Your task to perform on an android device: What's on my calendar today? Image 0: 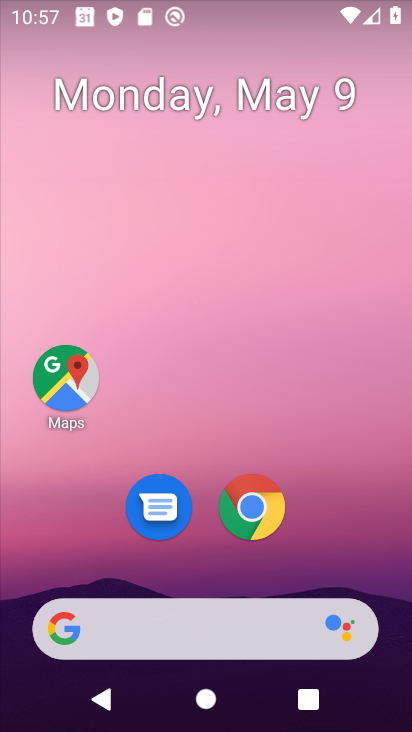
Step 0: click (242, 96)
Your task to perform on an android device: What's on my calendar today? Image 1: 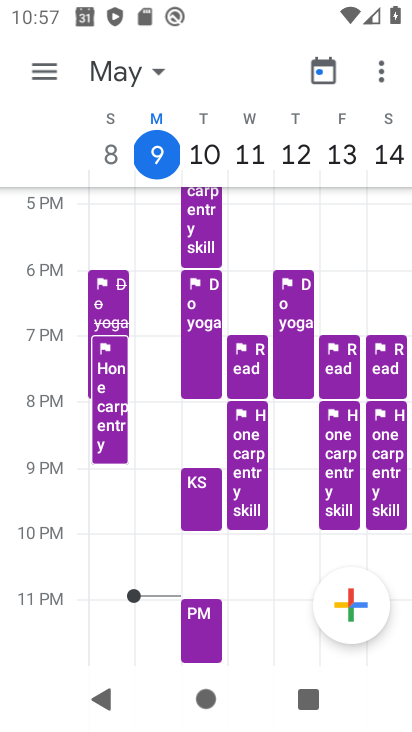
Step 1: click (39, 72)
Your task to perform on an android device: What's on my calendar today? Image 2: 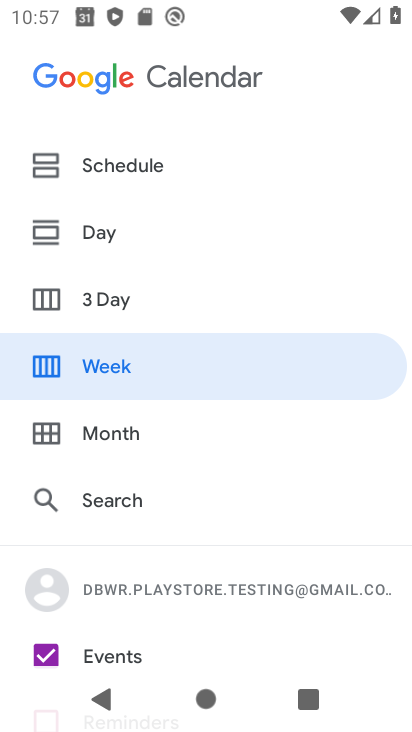
Step 2: click (97, 228)
Your task to perform on an android device: What's on my calendar today? Image 3: 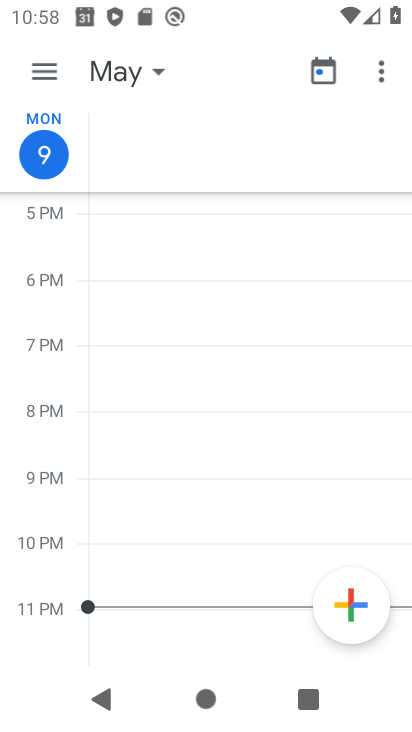
Step 3: click (130, 65)
Your task to perform on an android device: What's on my calendar today? Image 4: 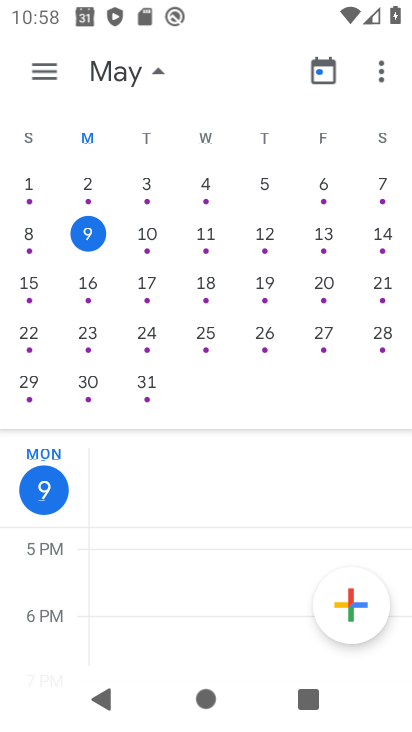
Step 4: click (147, 237)
Your task to perform on an android device: What's on my calendar today? Image 5: 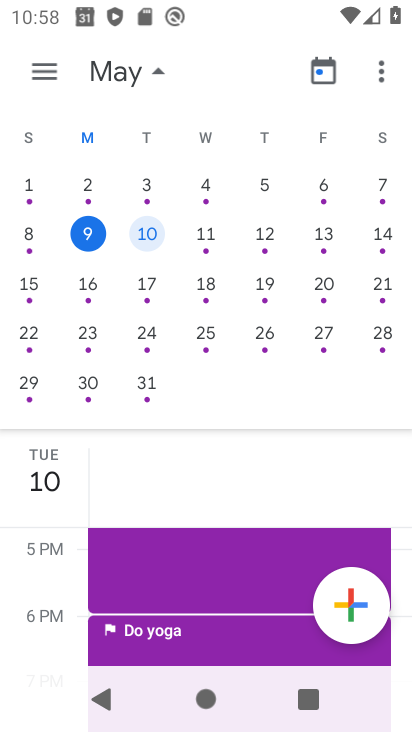
Step 5: task complete